Your task to perform on an android device: Check the news Image 0: 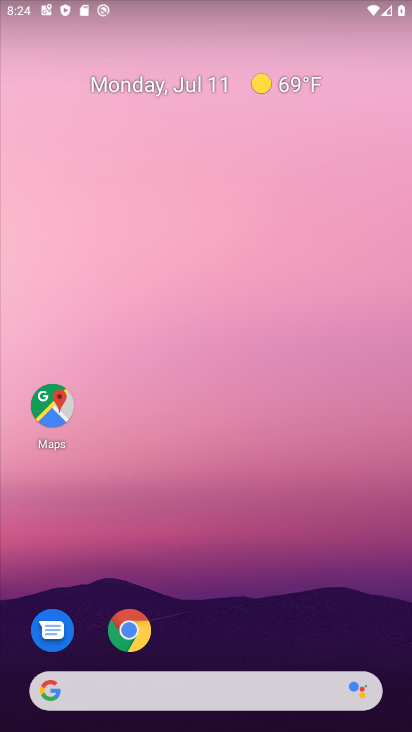
Step 0: drag from (180, 690) to (178, 122)
Your task to perform on an android device: Check the news Image 1: 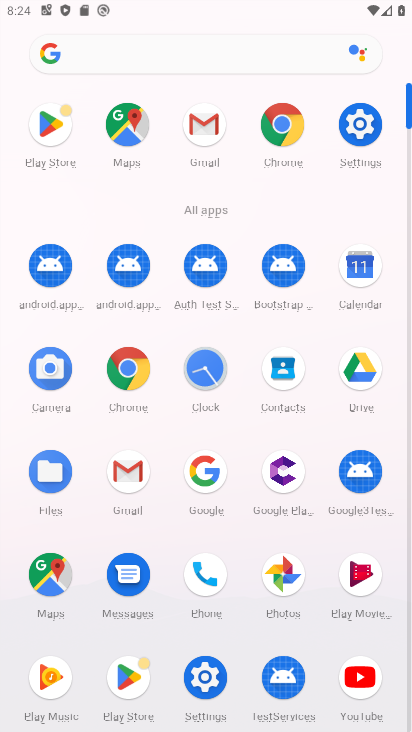
Step 1: click (197, 480)
Your task to perform on an android device: Check the news Image 2: 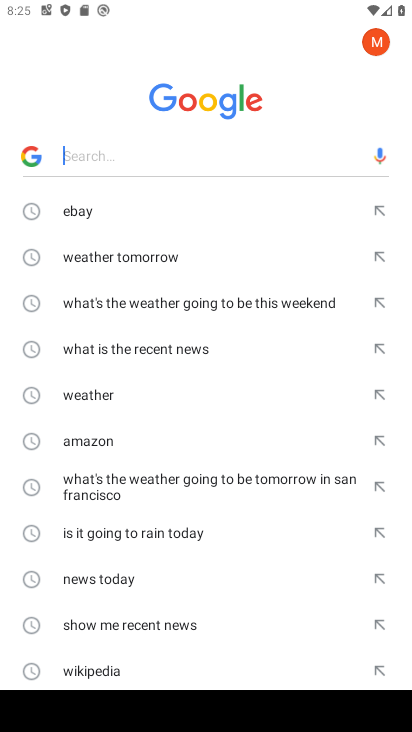
Step 2: click (97, 576)
Your task to perform on an android device: Check the news Image 3: 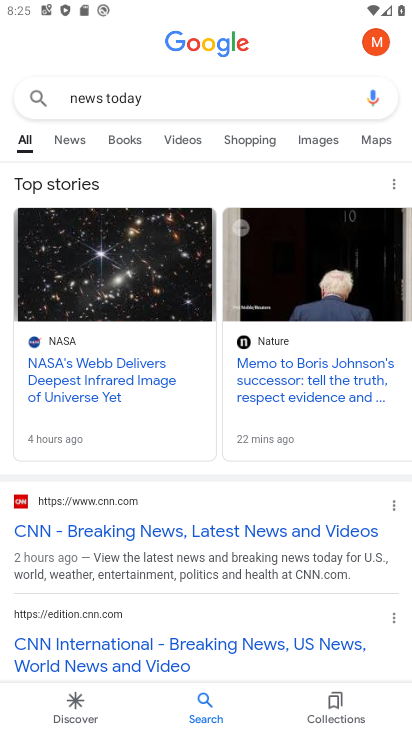
Step 3: task complete